Your task to perform on an android device: Is it going to rain today? Image 0: 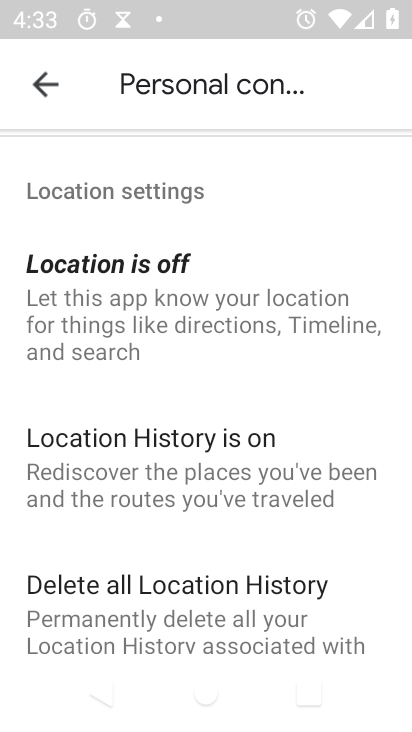
Step 0: press home button
Your task to perform on an android device: Is it going to rain today? Image 1: 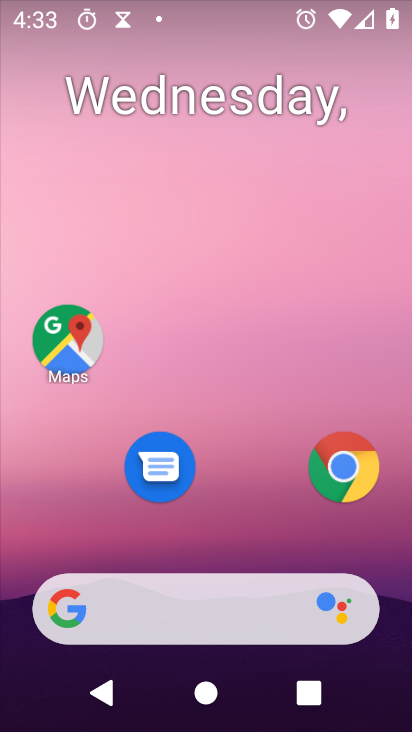
Step 1: click (365, 458)
Your task to perform on an android device: Is it going to rain today? Image 2: 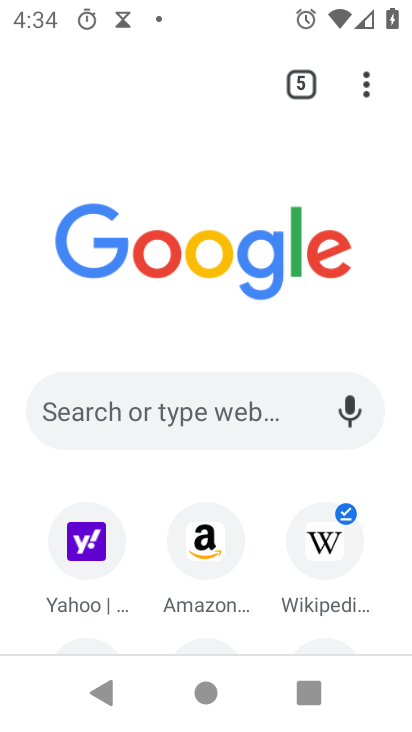
Step 2: click (180, 419)
Your task to perform on an android device: Is it going to rain today? Image 3: 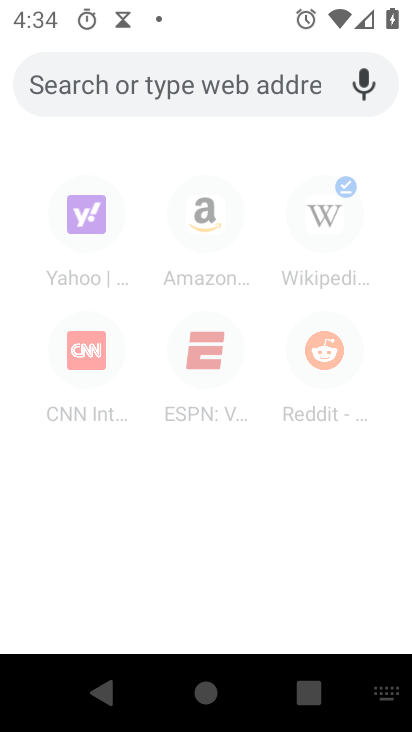
Step 3: type "Is it going to rain today?"
Your task to perform on an android device: Is it going to rain today? Image 4: 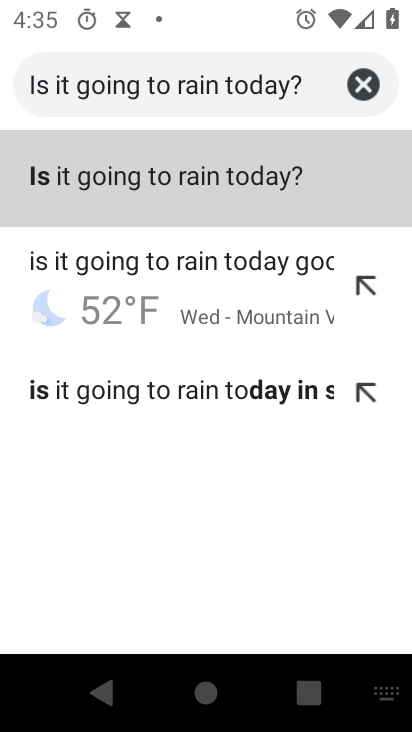
Step 4: click (231, 192)
Your task to perform on an android device: Is it going to rain today? Image 5: 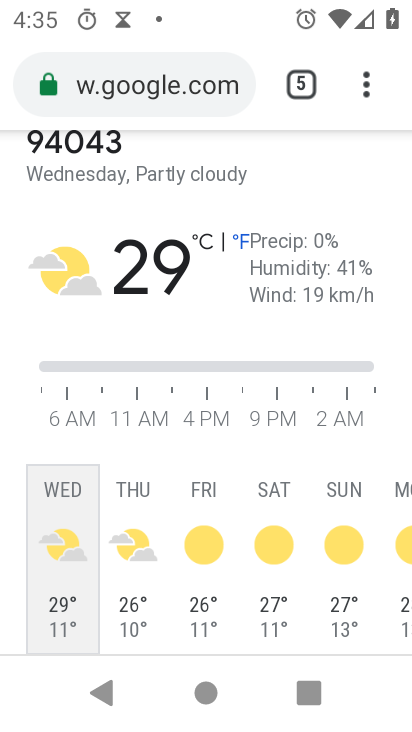
Step 5: task complete